Your task to perform on an android device: see creations saved in the google photos Image 0: 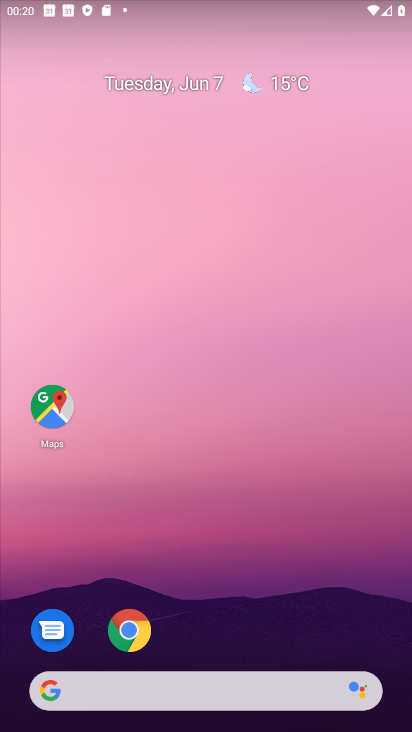
Step 0: drag from (344, 600) to (323, 185)
Your task to perform on an android device: see creations saved in the google photos Image 1: 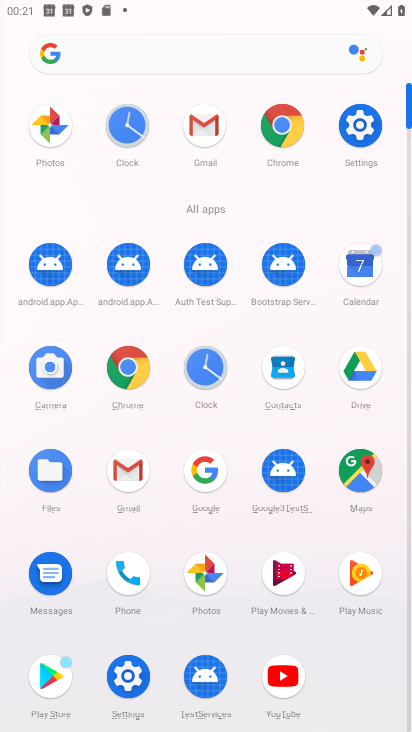
Step 1: click (208, 561)
Your task to perform on an android device: see creations saved in the google photos Image 2: 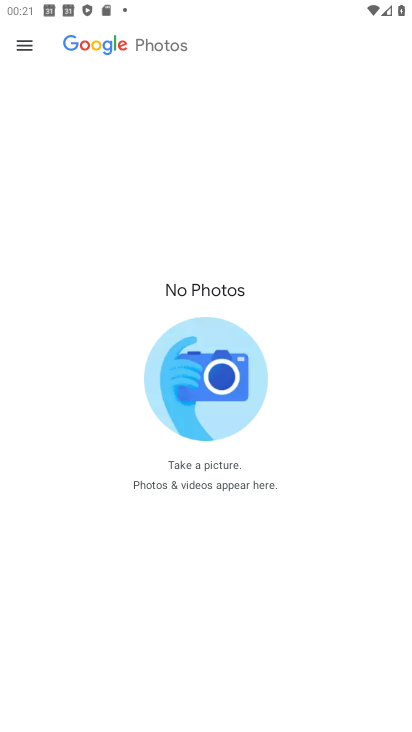
Step 2: click (22, 45)
Your task to perform on an android device: see creations saved in the google photos Image 3: 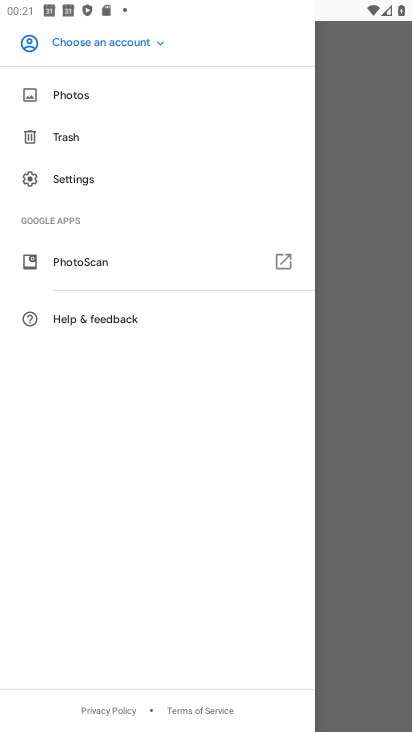
Step 3: click (382, 181)
Your task to perform on an android device: see creations saved in the google photos Image 4: 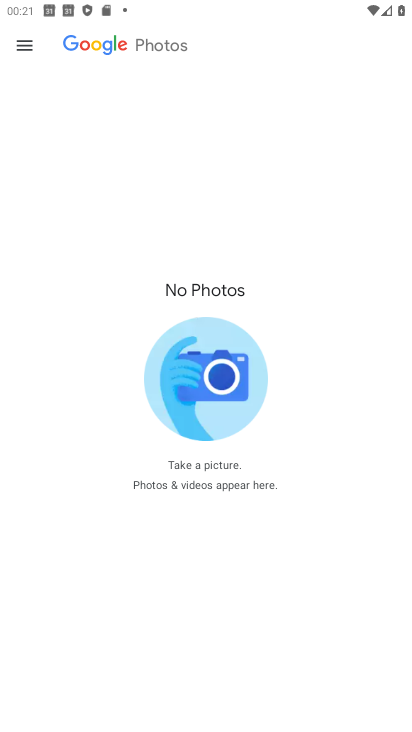
Step 4: click (65, 31)
Your task to perform on an android device: see creations saved in the google photos Image 5: 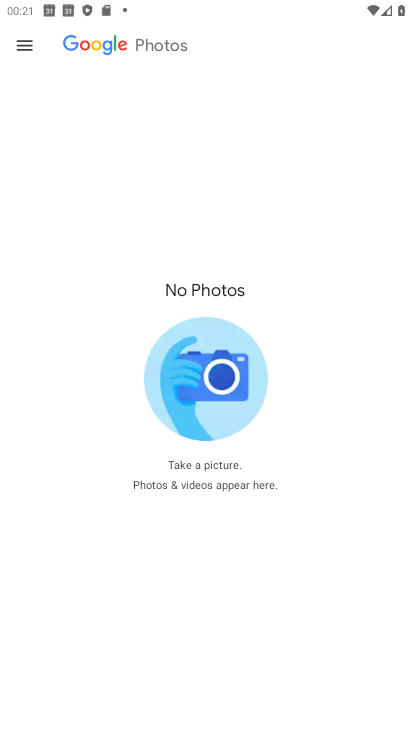
Step 5: click (129, 43)
Your task to perform on an android device: see creations saved in the google photos Image 6: 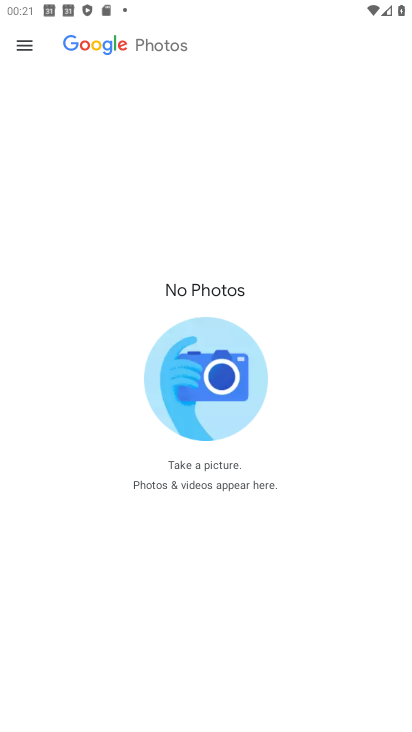
Step 6: click (142, 44)
Your task to perform on an android device: see creations saved in the google photos Image 7: 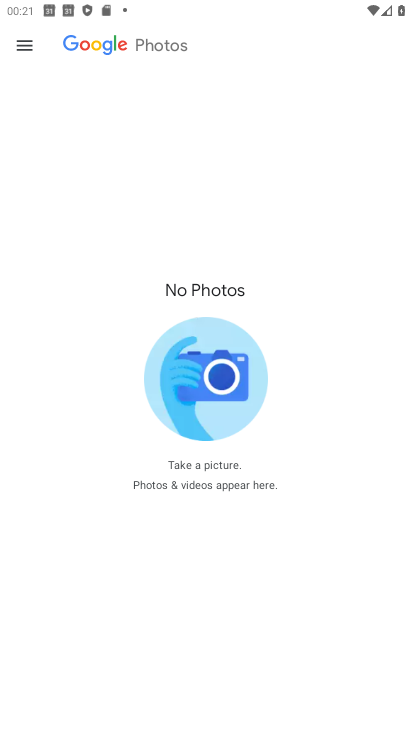
Step 7: click (159, 38)
Your task to perform on an android device: see creations saved in the google photos Image 8: 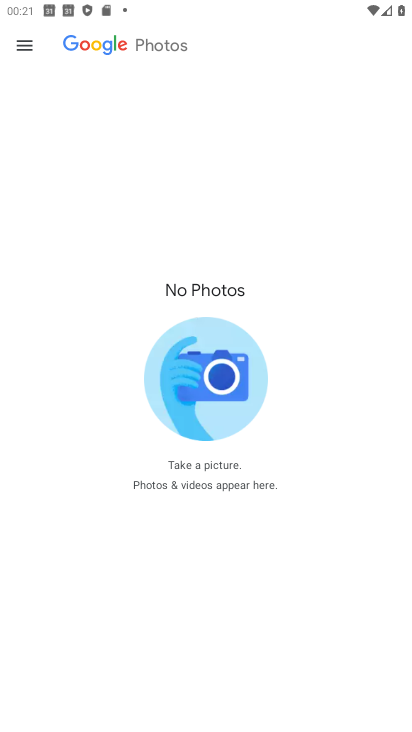
Step 8: click (133, 52)
Your task to perform on an android device: see creations saved in the google photos Image 9: 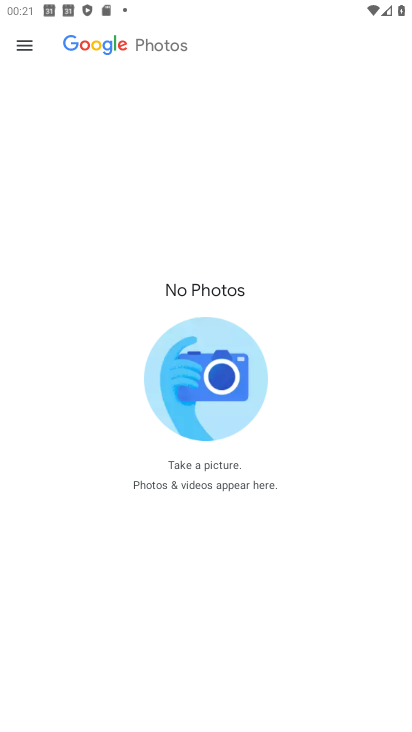
Step 9: task complete